Your task to perform on an android device: turn on the 12-hour format for clock Image 0: 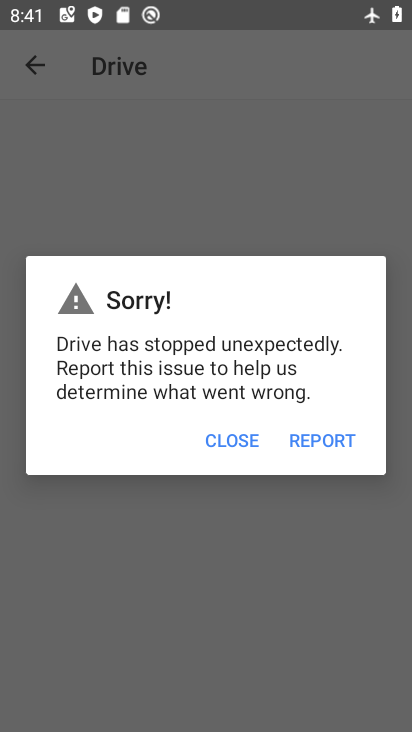
Step 0: press home button
Your task to perform on an android device: turn on the 12-hour format for clock Image 1: 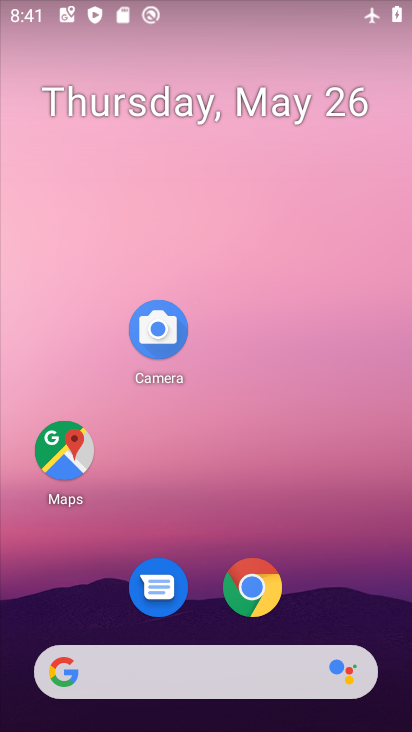
Step 1: drag from (214, 625) to (212, 237)
Your task to perform on an android device: turn on the 12-hour format for clock Image 2: 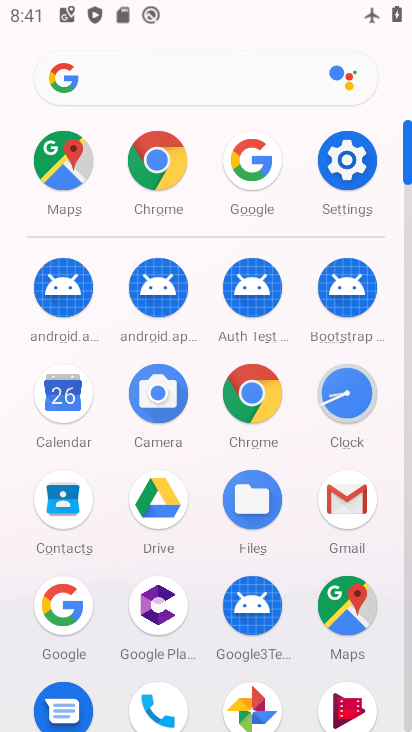
Step 2: click (340, 386)
Your task to perform on an android device: turn on the 12-hour format for clock Image 3: 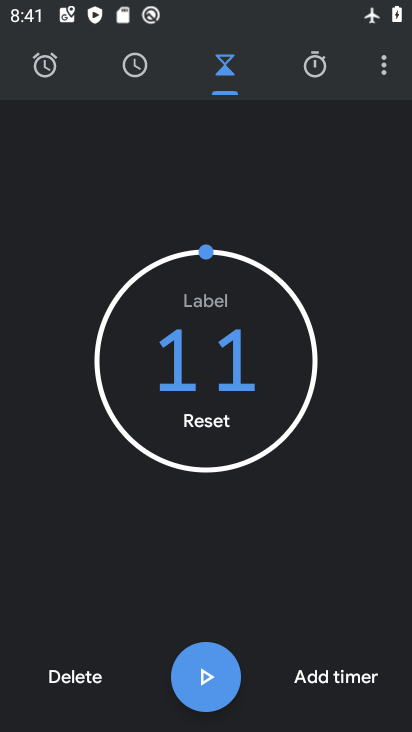
Step 3: click (385, 71)
Your task to perform on an android device: turn on the 12-hour format for clock Image 4: 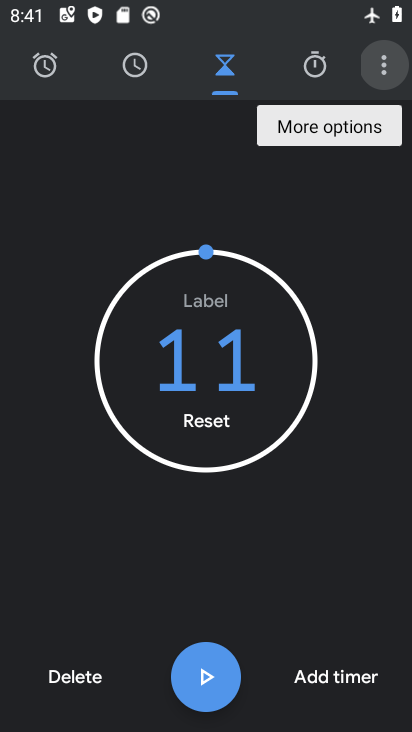
Step 4: click (374, 77)
Your task to perform on an android device: turn on the 12-hour format for clock Image 5: 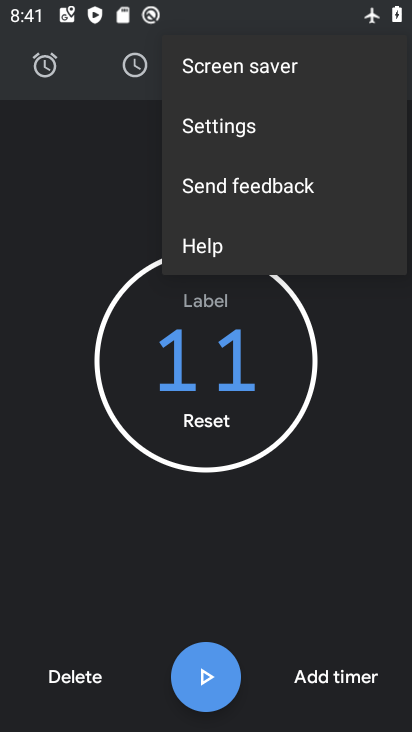
Step 5: click (265, 123)
Your task to perform on an android device: turn on the 12-hour format for clock Image 6: 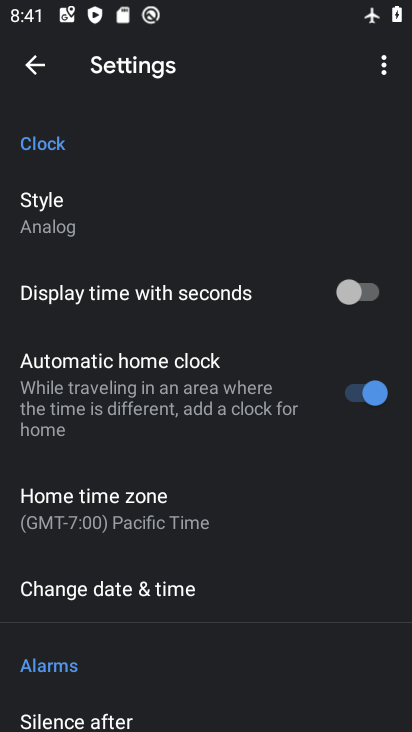
Step 6: click (148, 595)
Your task to perform on an android device: turn on the 12-hour format for clock Image 7: 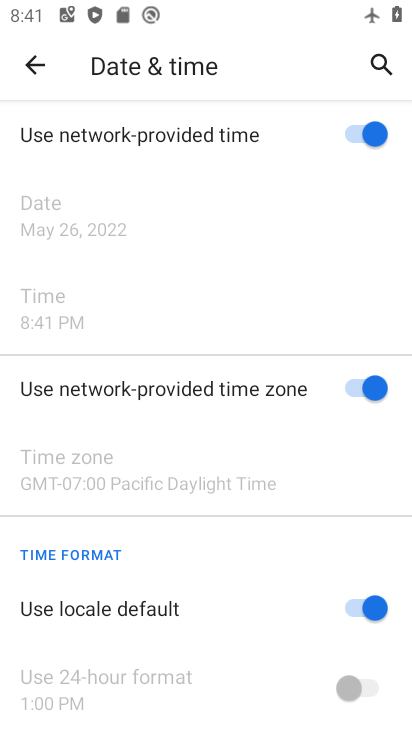
Step 7: task complete